Your task to perform on an android device: Open battery settings Image 0: 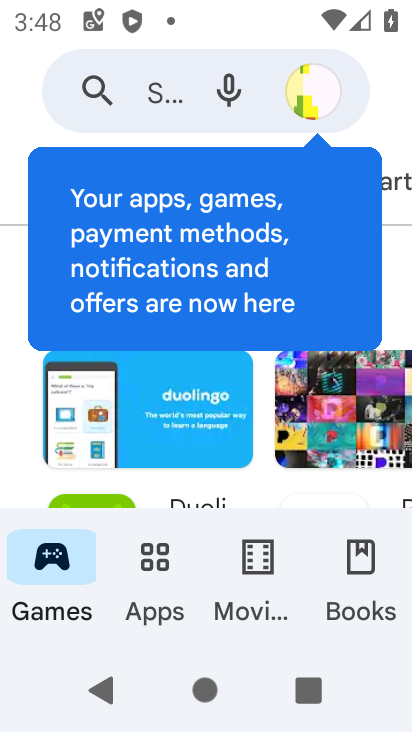
Step 0: press home button
Your task to perform on an android device: Open battery settings Image 1: 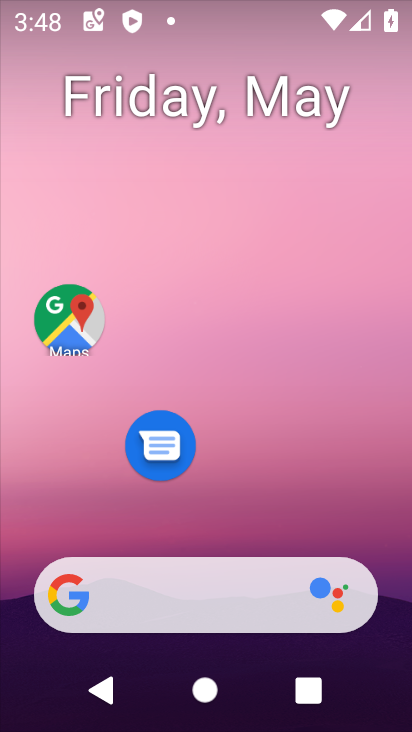
Step 1: drag from (228, 508) to (277, 0)
Your task to perform on an android device: Open battery settings Image 2: 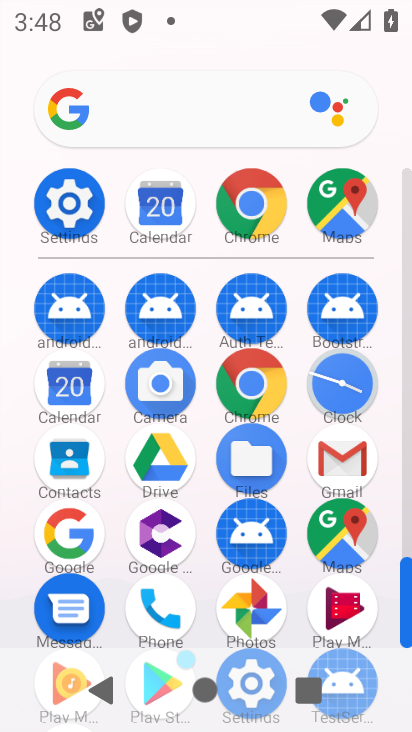
Step 2: click (74, 216)
Your task to perform on an android device: Open battery settings Image 3: 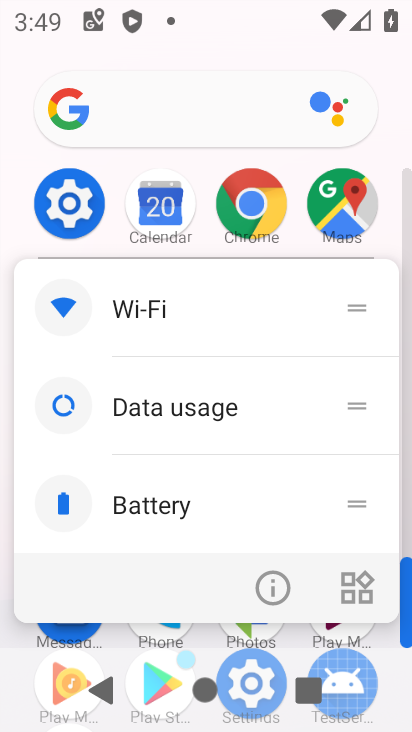
Step 3: click (64, 196)
Your task to perform on an android device: Open battery settings Image 4: 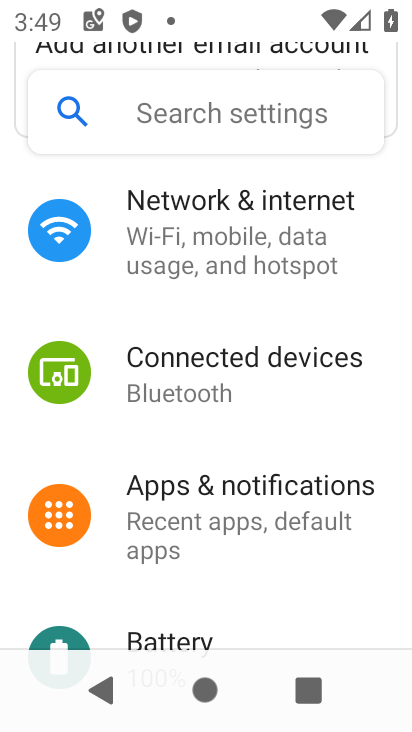
Step 4: drag from (196, 599) to (232, 435)
Your task to perform on an android device: Open battery settings Image 5: 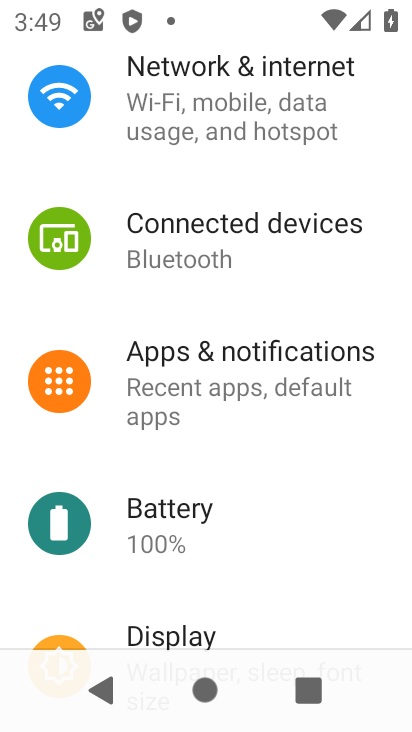
Step 5: click (176, 526)
Your task to perform on an android device: Open battery settings Image 6: 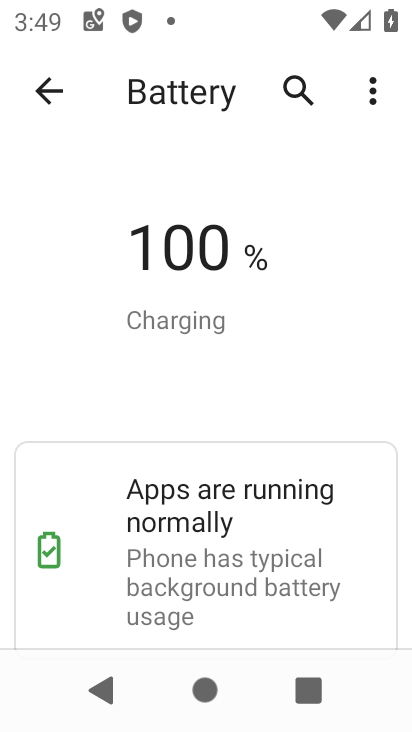
Step 6: task complete